Your task to perform on an android device: Go to Android settings Image 0: 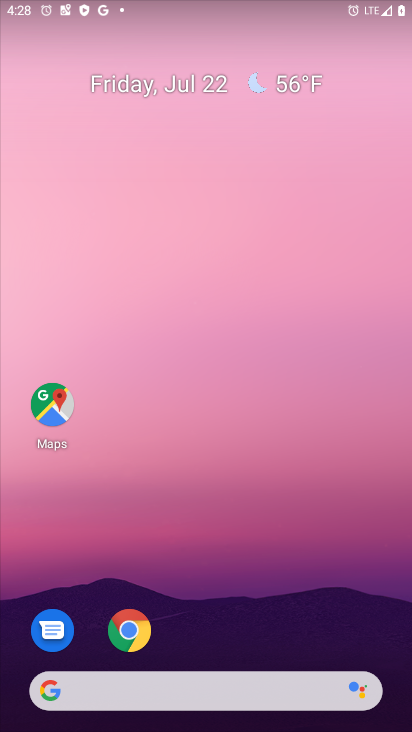
Step 0: drag from (194, 699) to (189, 131)
Your task to perform on an android device: Go to Android settings Image 1: 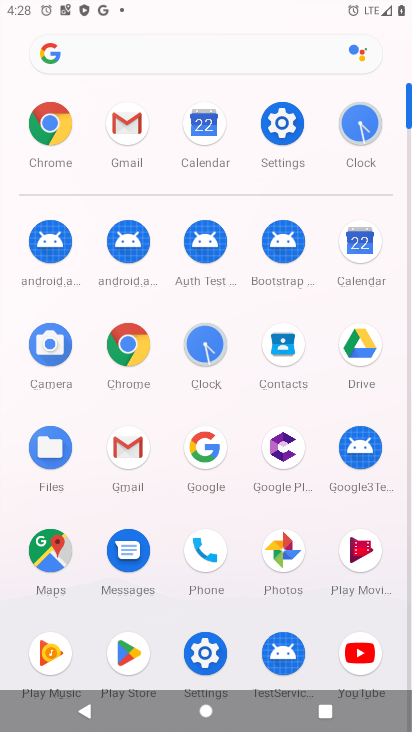
Step 1: click (274, 132)
Your task to perform on an android device: Go to Android settings Image 2: 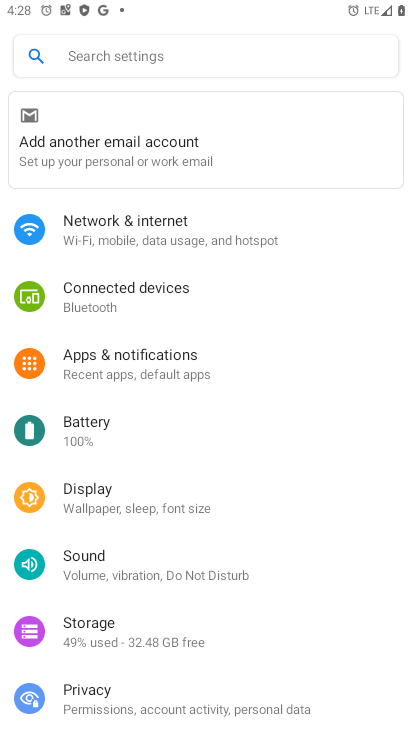
Step 2: task complete